Your task to perform on an android device: Show the shopping cart on bestbuy.com. Add beats solo 3 to the cart on bestbuy.com Image 0: 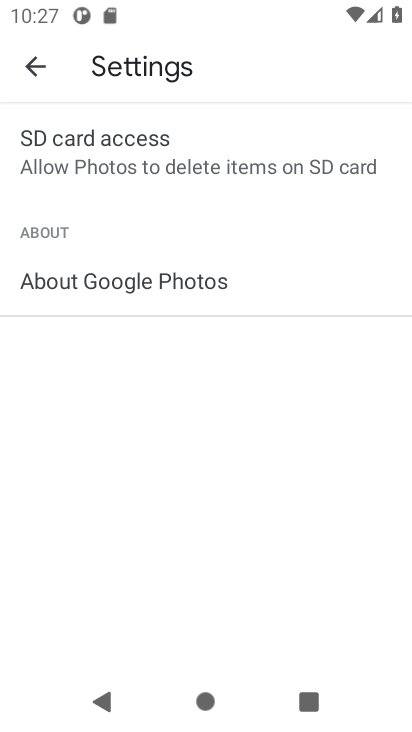
Step 0: press home button
Your task to perform on an android device: Show the shopping cart on bestbuy.com. Add beats solo 3 to the cart on bestbuy.com Image 1: 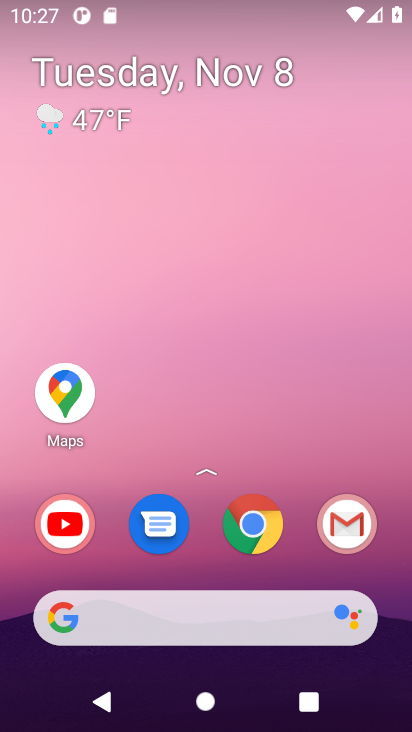
Step 1: click (261, 535)
Your task to perform on an android device: Show the shopping cart on bestbuy.com. Add beats solo 3 to the cart on bestbuy.com Image 2: 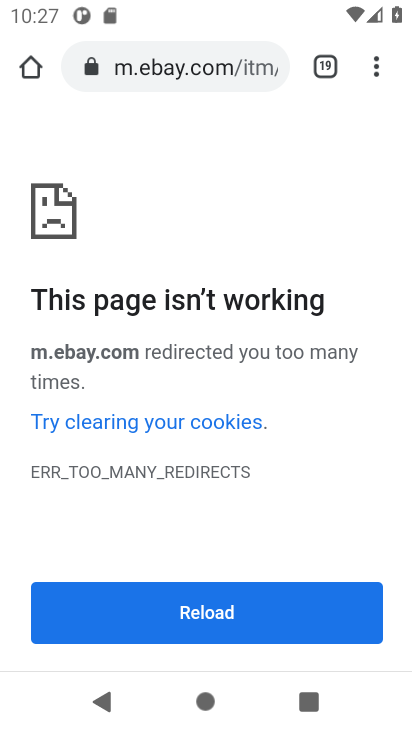
Step 2: click (157, 64)
Your task to perform on an android device: Show the shopping cart on bestbuy.com. Add beats solo 3 to the cart on bestbuy.com Image 3: 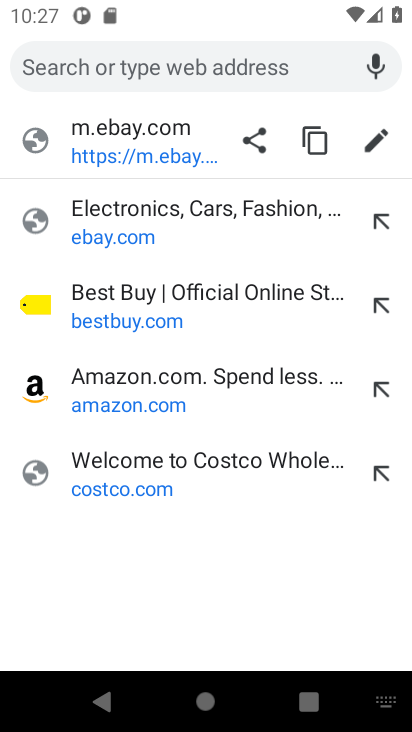
Step 3: click (118, 318)
Your task to perform on an android device: Show the shopping cart on bestbuy.com. Add beats solo 3 to the cart on bestbuy.com Image 4: 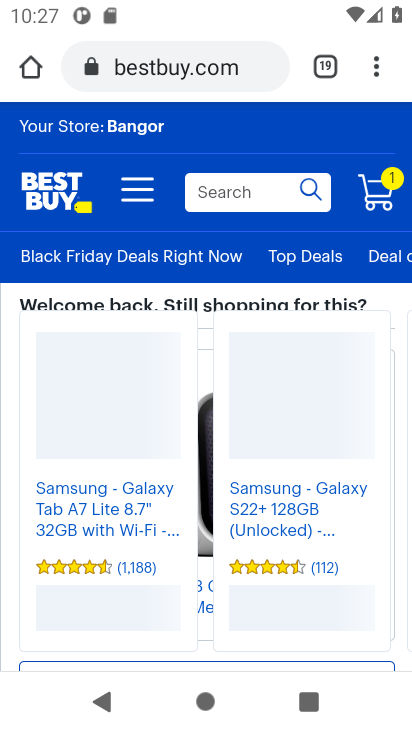
Step 4: click (381, 200)
Your task to perform on an android device: Show the shopping cart on bestbuy.com. Add beats solo 3 to the cart on bestbuy.com Image 5: 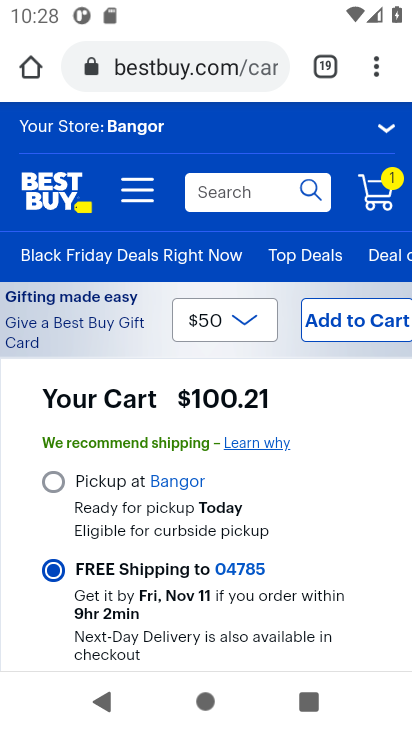
Step 5: drag from (290, 535) to (266, 248)
Your task to perform on an android device: Show the shopping cart on bestbuy.com. Add beats solo 3 to the cart on bestbuy.com Image 6: 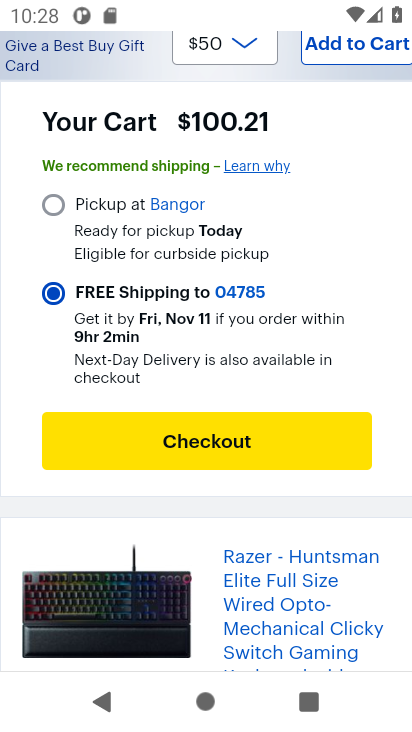
Step 6: drag from (347, 291) to (377, 692)
Your task to perform on an android device: Show the shopping cart on bestbuy.com. Add beats solo 3 to the cart on bestbuy.com Image 7: 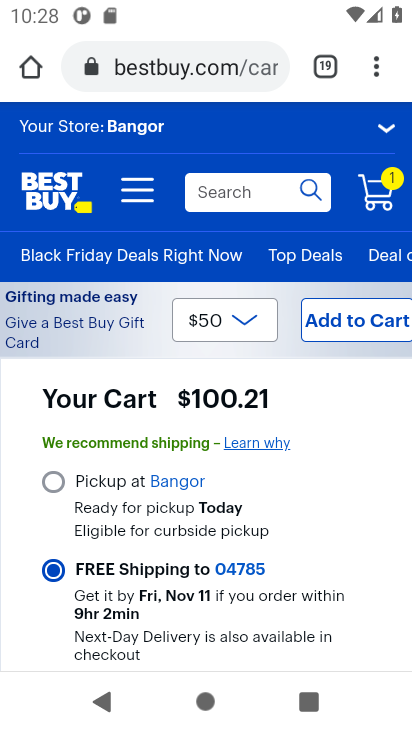
Step 7: click (233, 188)
Your task to perform on an android device: Show the shopping cart on bestbuy.com. Add beats solo 3 to the cart on bestbuy.com Image 8: 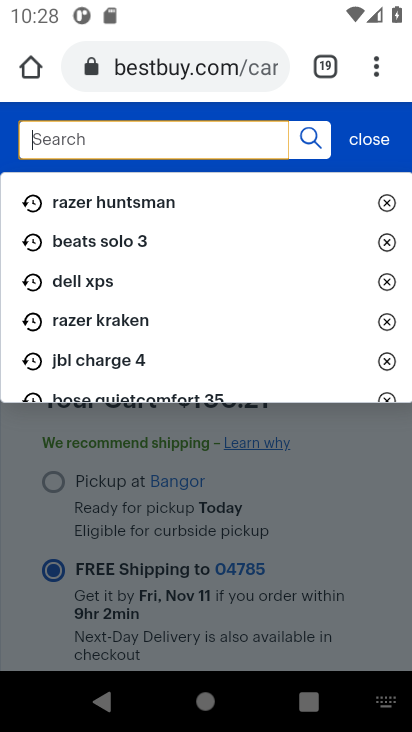
Step 8: type "beats solo 3"
Your task to perform on an android device: Show the shopping cart on bestbuy.com. Add beats solo 3 to the cart on bestbuy.com Image 9: 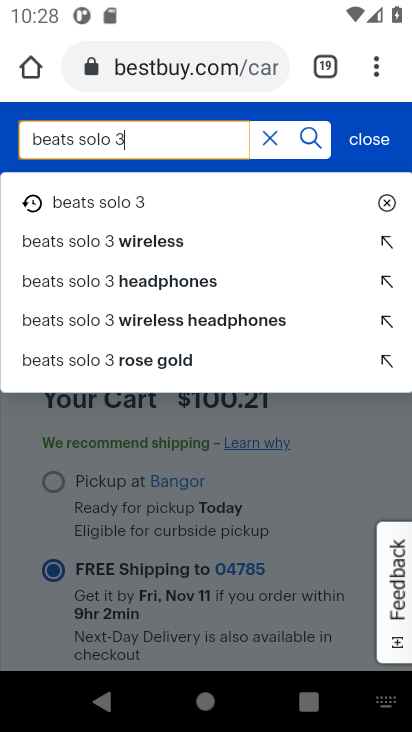
Step 9: click (99, 211)
Your task to perform on an android device: Show the shopping cart on bestbuy.com. Add beats solo 3 to the cart on bestbuy.com Image 10: 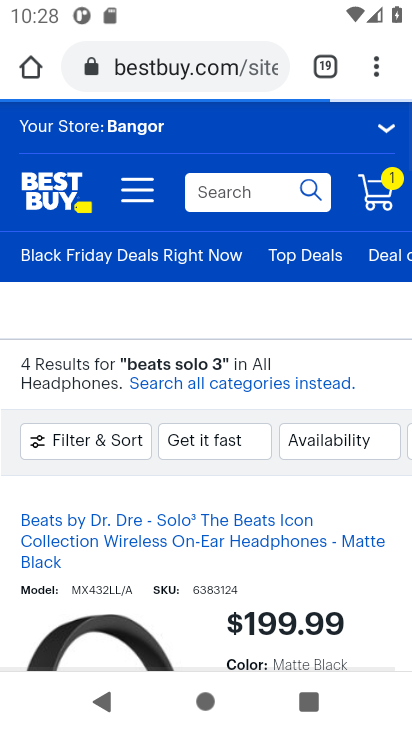
Step 10: drag from (181, 565) to (165, 341)
Your task to perform on an android device: Show the shopping cart on bestbuy.com. Add beats solo 3 to the cart on bestbuy.com Image 11: 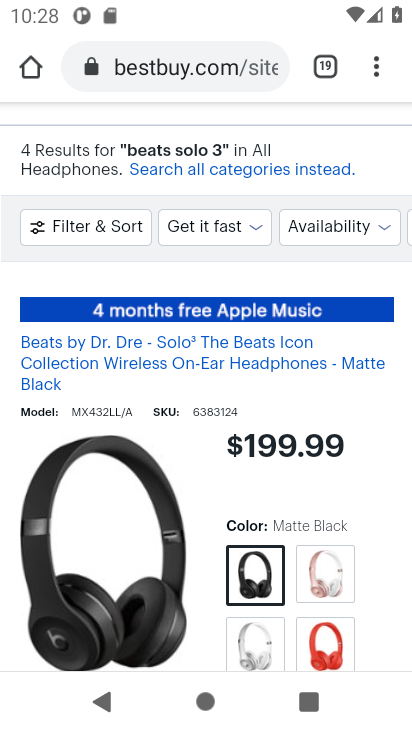
Step 11: drag from (212, 468) to (174, 259)
Your task to perform on an android device: Show the shopping cart on bestbuy.com. Add beats solo 3 to the cart on bestbuy.com Image 12: 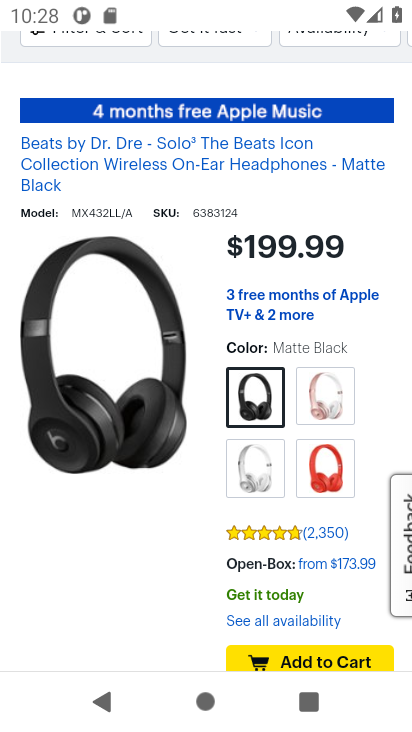
Step 12: drag from (188, 508) to (182, 301)
Your task to perform on an android device: Show the shopping cart on bestbuy.com. Add beats solo 3 to the cart on bestbuy.com Image 13: 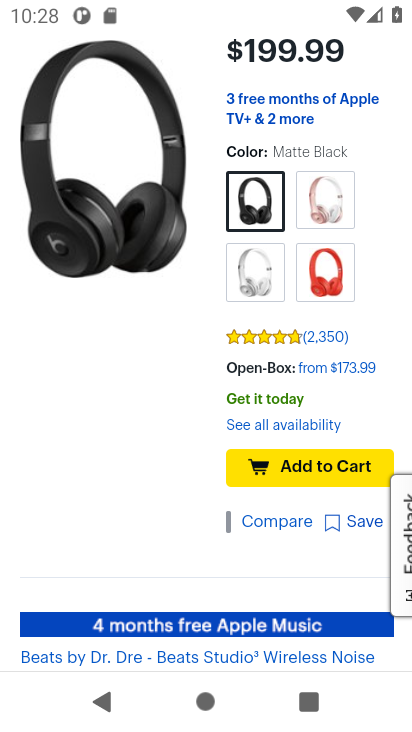
Step 13: click (295, 459)
Your task to perform on an android device: Show the shopping cart on bestbuy.com. Add beats solo 3 to the cart on bestbuy.com Image 14: 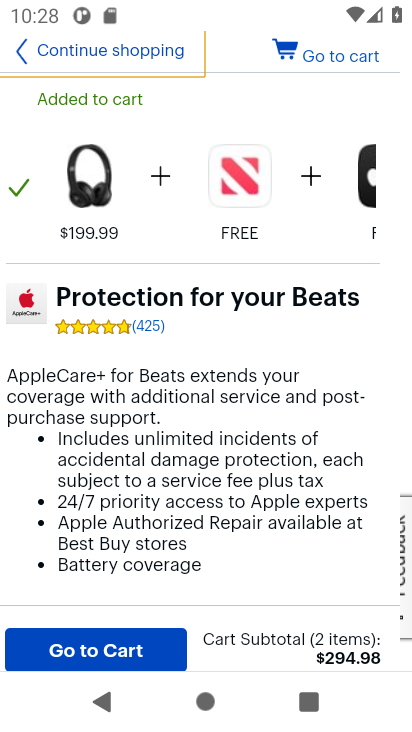
Step 14: task complete